Your task to perform on an android device: turn off airplane mode Image 0: 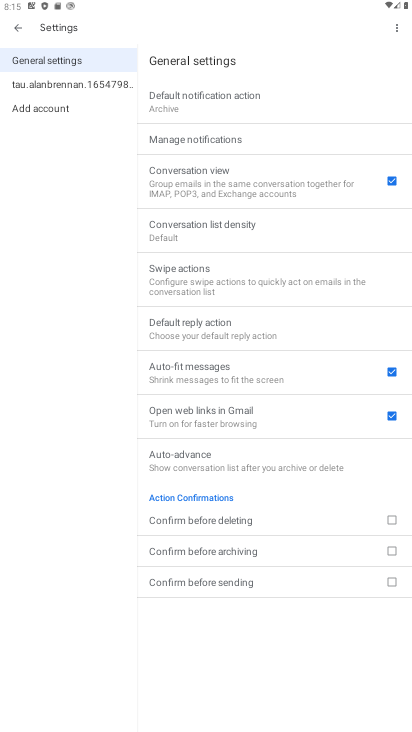
Step 0: press home button
Your task to perform on an android device: turn off airplane mode Image 1: 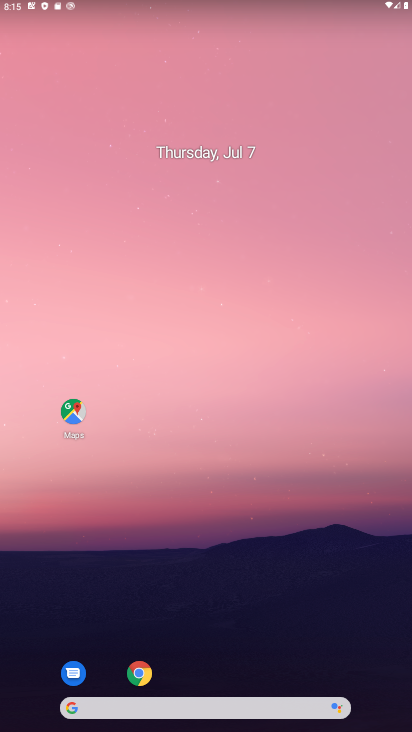
Step 1: task complete